Your task to perform on an android device: turn on wifi Image 0: 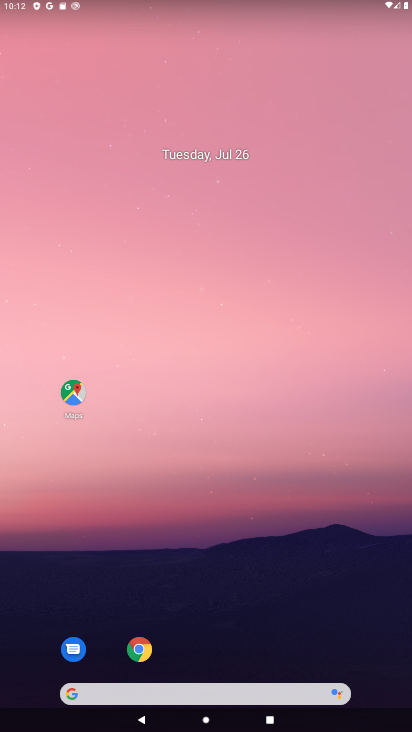
Step 0: drag from (183, 655) to (197, 151)
Your task to perform on an android device: turn on wifi Image 1: 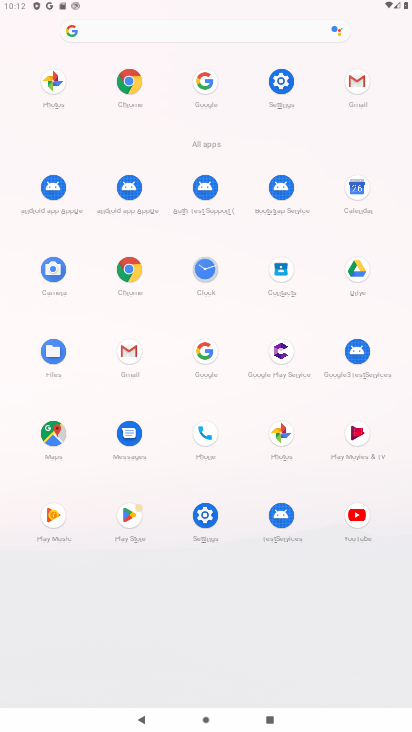
Step 1: click (278, 77)
Your task to perform on an android device: turn on wifi Image 2: 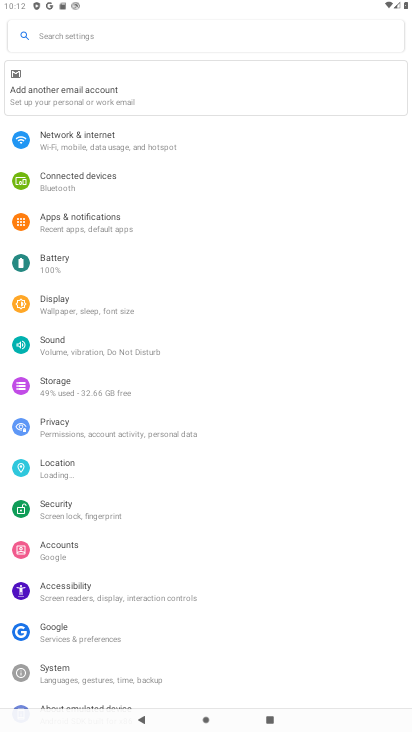
Step 2: click (67, 141)
Your task to perform on an android device: turn on wifi Image 3: 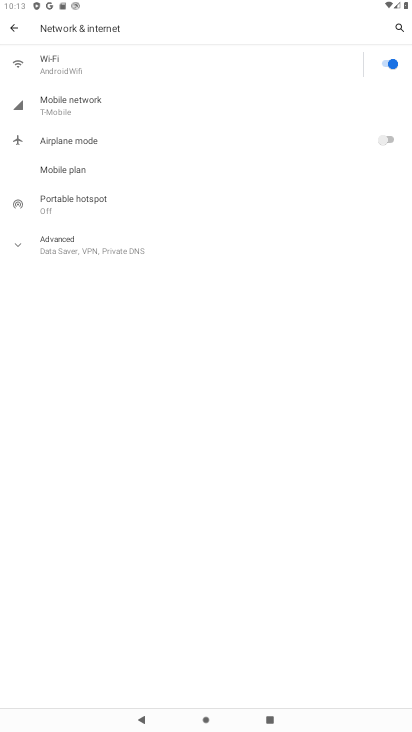
Step 3: task complete